Your task to perform on an android device: toggle wifi Image 0: 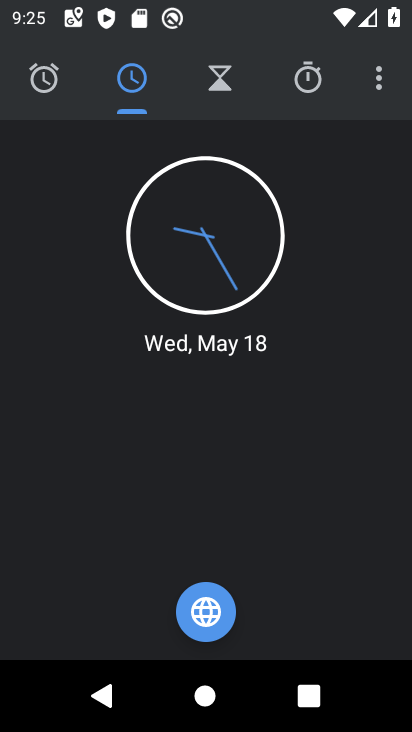
Step 0: press home button
Your task to perform on an android device: toggle wifi Image 1: 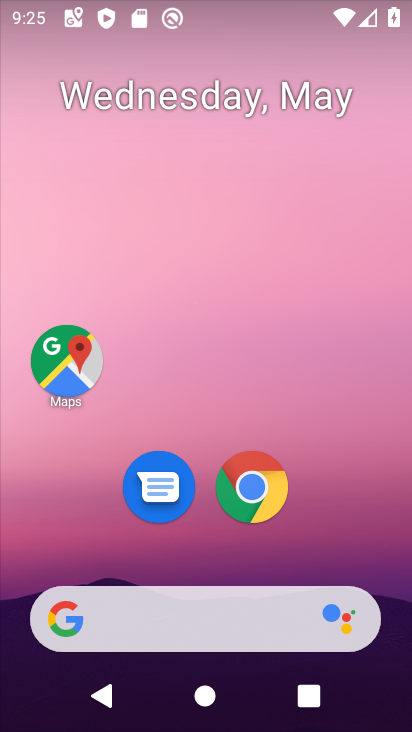
Step 1: drag from (349, 510) to (259, 115)
Your task to perform on an android device: toggle wifi Image 2: 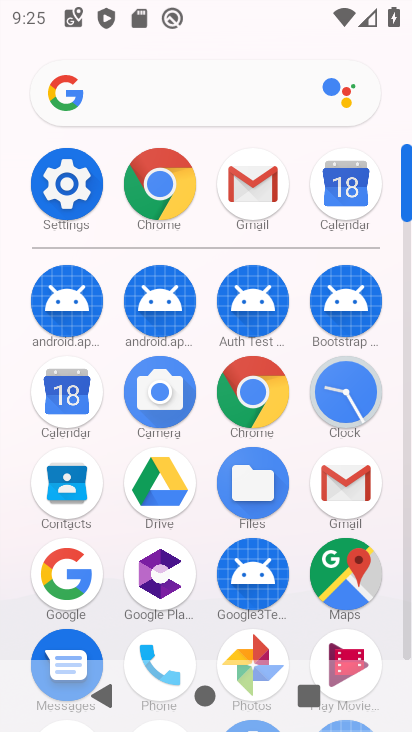
Step 2: click (70, 183)
Your task to perform on an android device: toggle wifi Image 3: 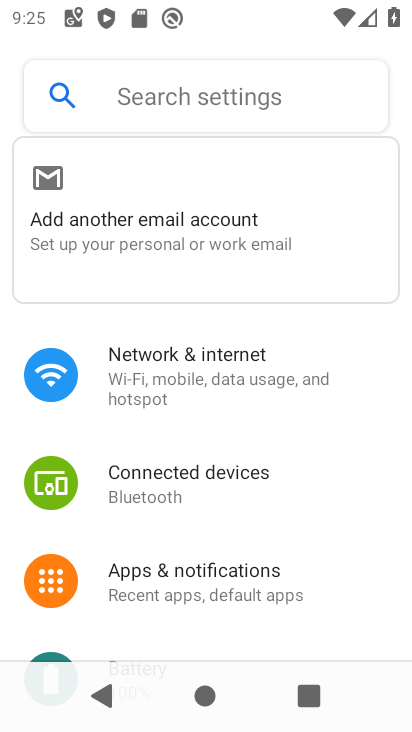
Step 3: click (200, 369)
Your task to perform on an android device: toggle wifi Image 4: 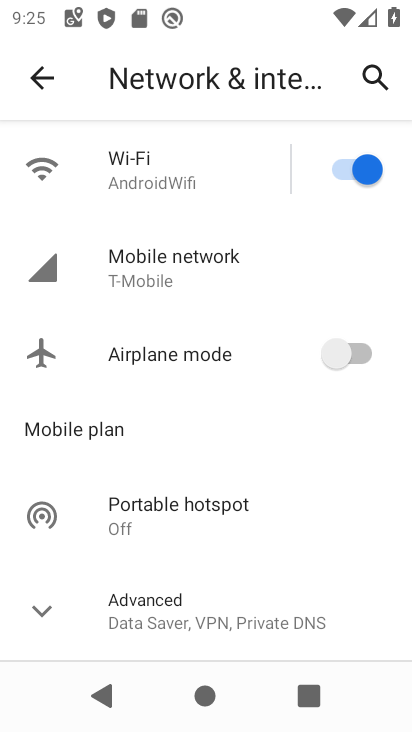
Step 4: click (384, 164)
Your task to perform on an android device: toggle wifi Image 5: 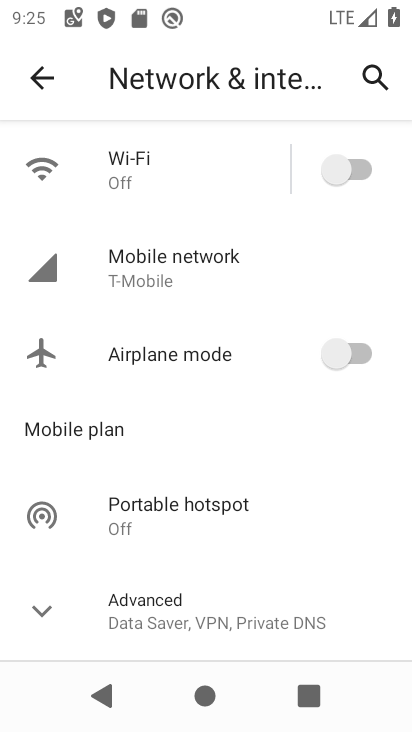
Step 5: task complete